Your task to perform on an android device: set default search engine in the chrome app Image 0: 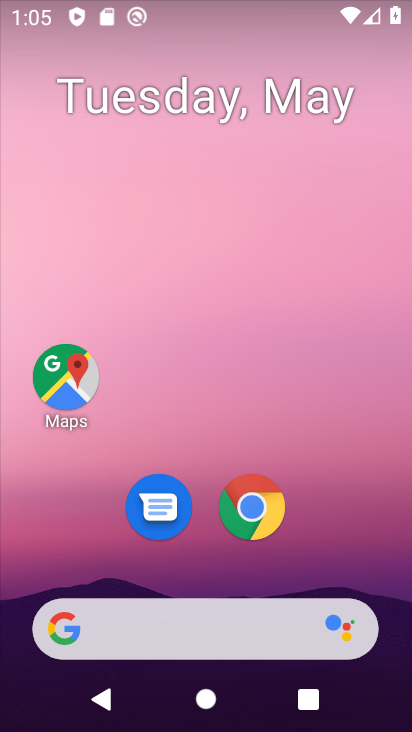
Step 0: drag from (402, 624) to (328, 65)
Your task to perform on an android device: set default search engine in the chrome app Image 1: 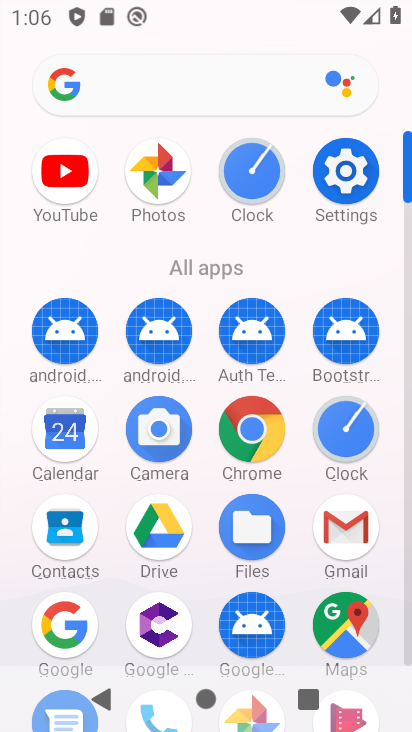
Step 1: click (259, 433)
Your task to perform on an android device: set default search engine in the chrome app Image 2: 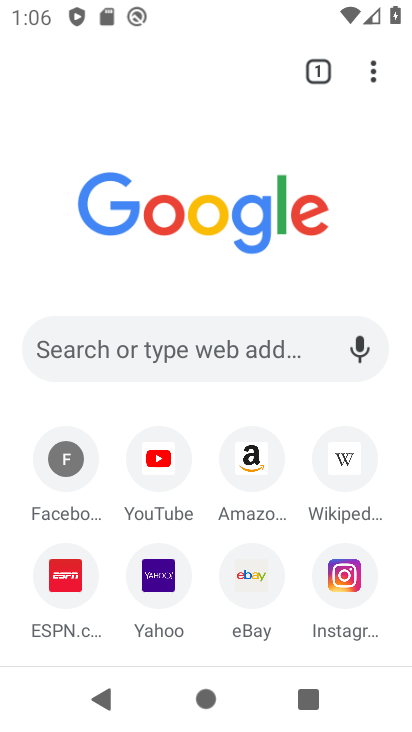
Step 2: click (381, 78)
Your task to perform on an android device: set default search engine in the chrome app Image 3: 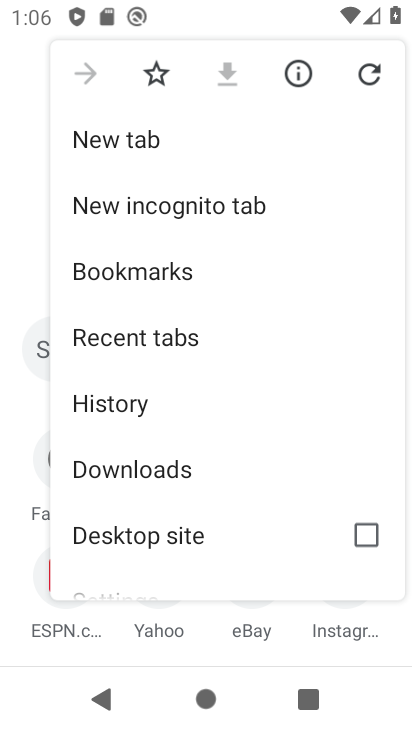
Step 3: drag from (125, 572) to (213, 55)
Your task to perform on an android device: set default search engine in the chrome app Image 4: 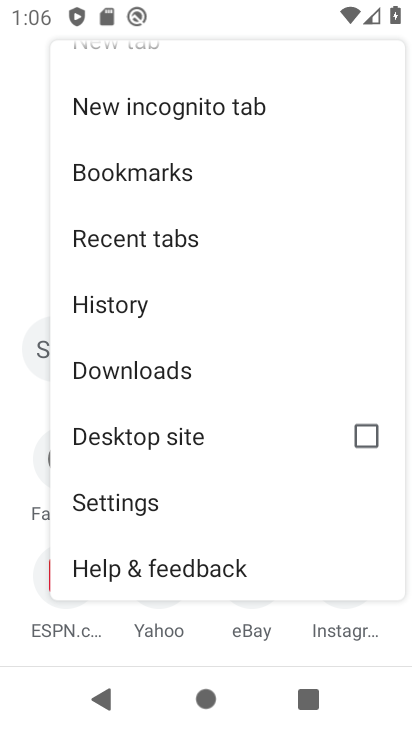
Step 4: click (121, 490)
Your task to perform on an android device: set default search engine in the chrome app Image 5: 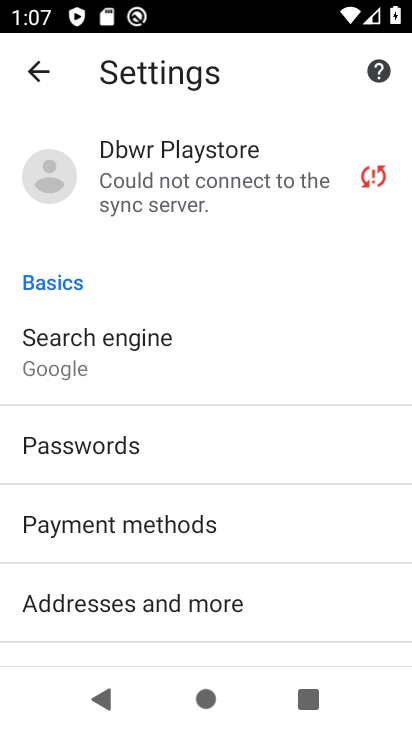
Step 5: click (217, 364)
Your task to perform on an android device: set default search engine in the chrome app Image 6: 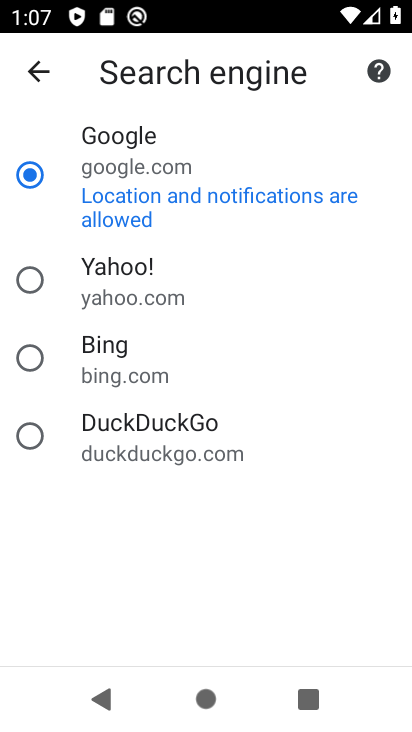
Step 6: click (186, 344)
Your task to perform on an android device: set default search engine in the chrome app Image 7: 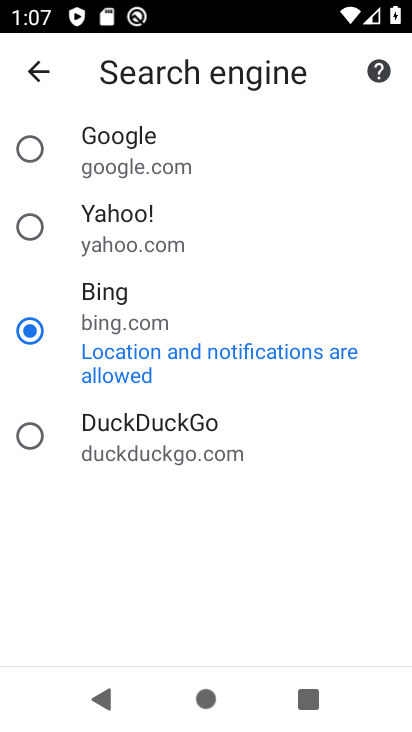
Step 7: task complete